Your task to perform on an android device: check storage Image 0: 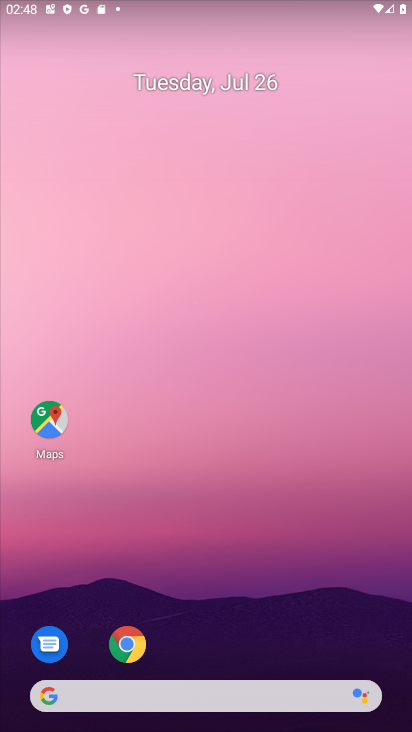
Step 0: drag from (219, 668) to (189, 35)
Your task to perform on an android device: check storage Image 1: 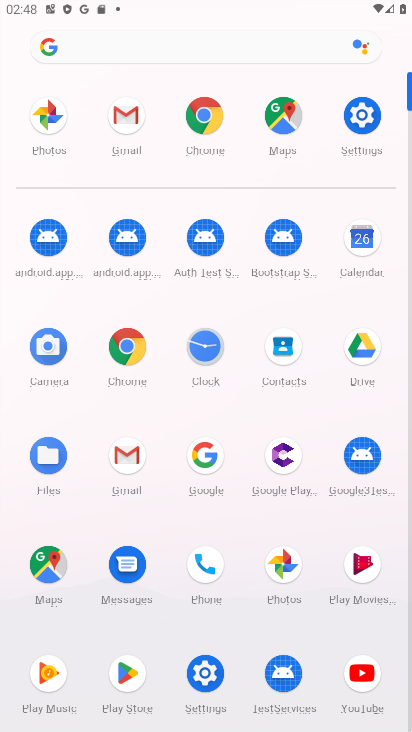
Step 1: click (194, 668)
Your task to perform on an android device: check storage Image 2: 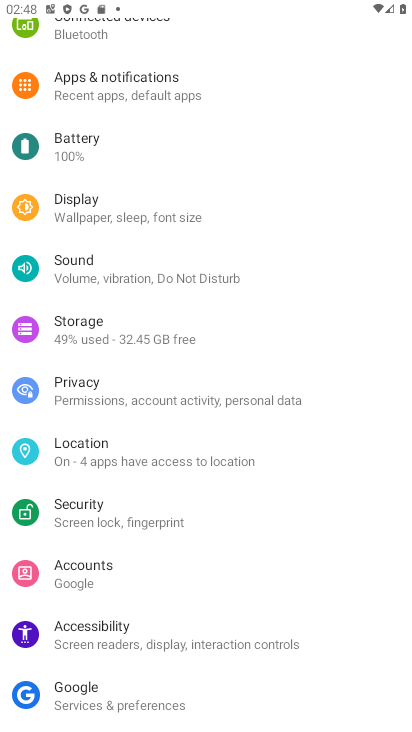
Step 2: click (107, 320)
Your task to perform on an android device: check storage Image 3: 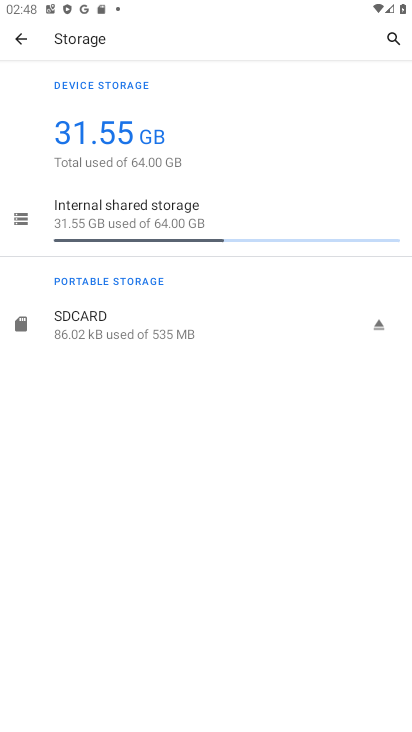
Step 3: click (118, 220)
Your task to perform on an android device: check storage Image 4: 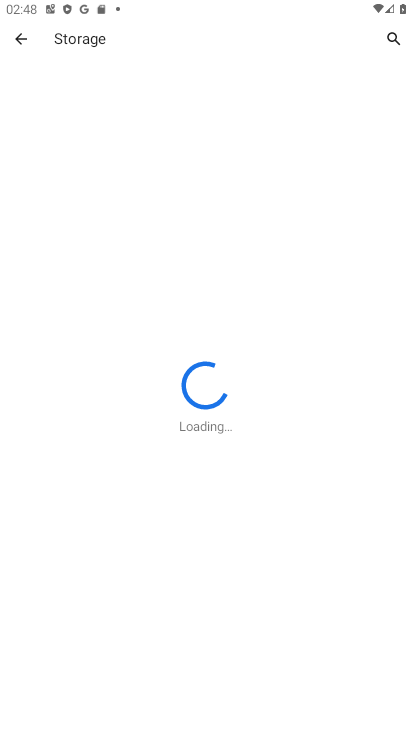
Step 4: task complete